Your task to perform on an android device: Go to eBay Image 0: 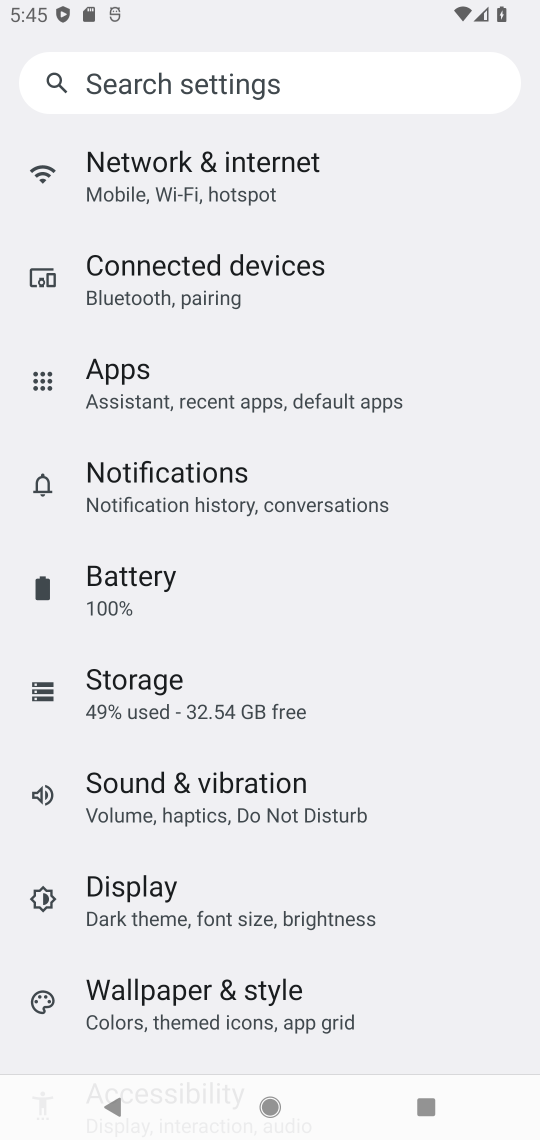
Step 0: press home button
Your task to perform on an android device: Go to eBay Image 1: 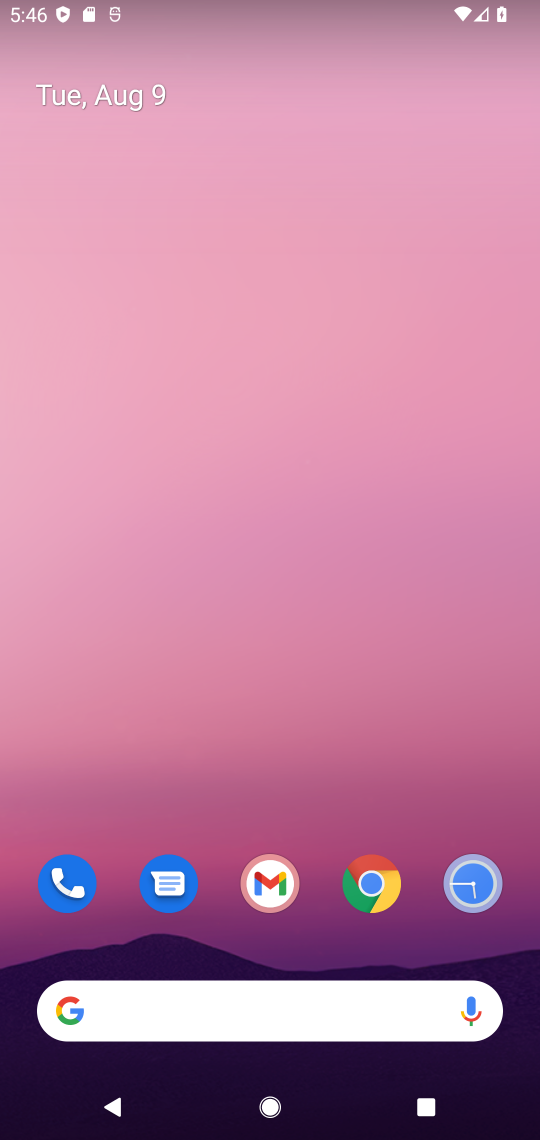
Step 1: click (366, 879)
Your task to perform on an android device: Go to eBay Image 2: 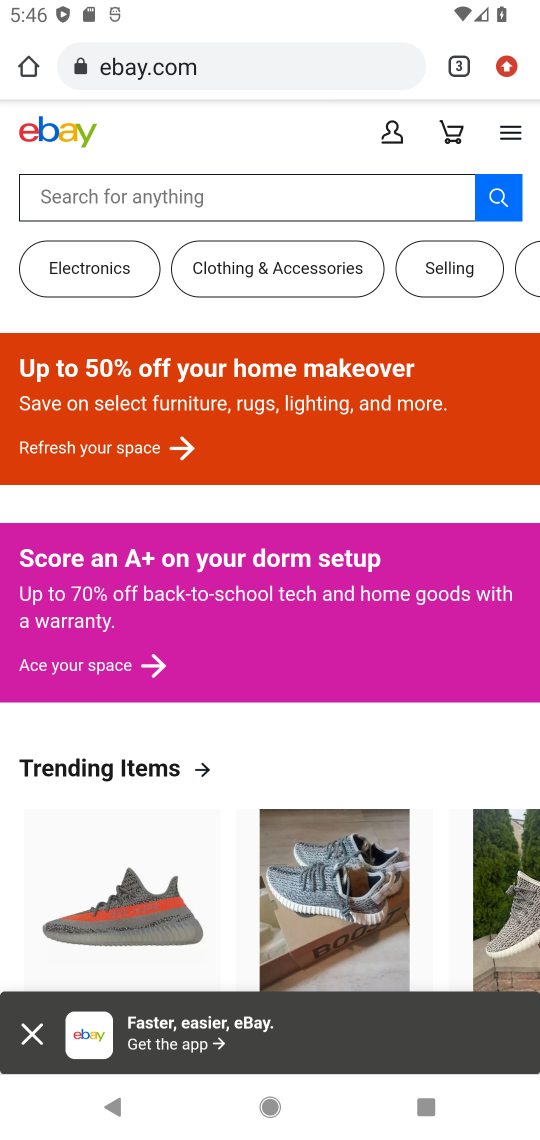
Step 2: task complete